Your task to perform on an android device: Search for logitech g910 on ebay, select the first entry, add it to the cart, then select checkout. Image 0: 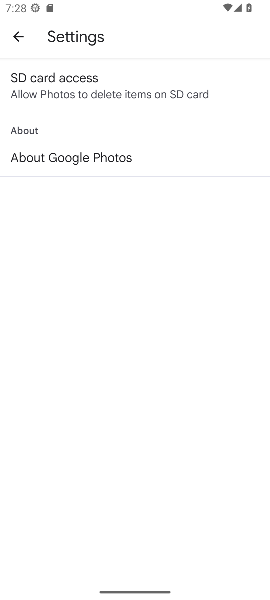
Step 0: press home button
Your task to perform on an android device: Search for logitech g910 on ebay, select the first entry, add it to the cart, then select checkout. Image 1: 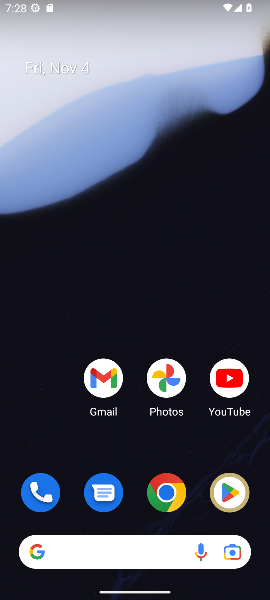
Step 1: drag from (184, 461) to (225, 33)
Your task to perform on an android device: Search for logitech g910 on ebay, select the first entry, add it to the cart, then select checkout. Image 2: 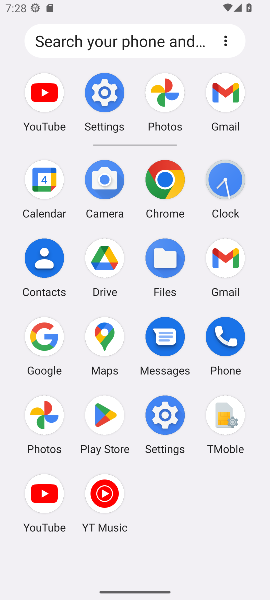
Step 2: click (167, 176)
Your task to perform on an android device: Search for logitech g910 on ebay, select the first entry, add it to the cart, then select checkout. Image 3: 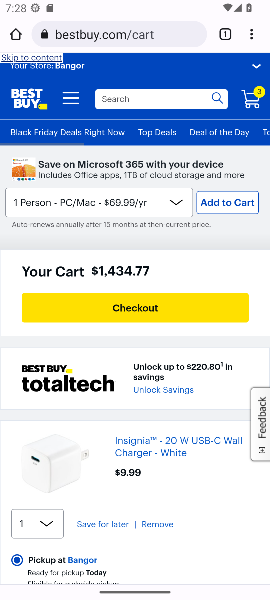
Step 3: click (151, 38)
Your task to perform on an android device: Search for logitech g910 on ebay, select the first entry, add it to the cart, then select checkout. Image 4: 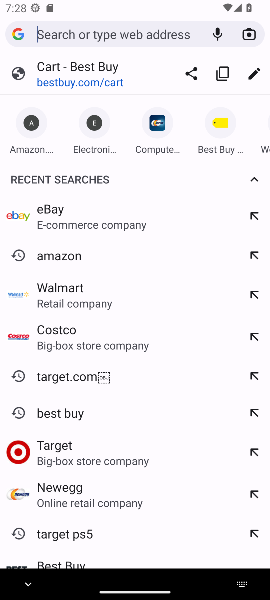
Step 4: type "ebay.com"
Your task to perform on an android device: Search for logitech g910 on ebay, select the first entry, add it to the cart, then select checkout. Image 5: 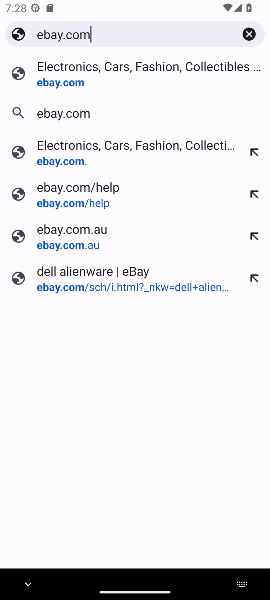
Step 5: press enter
Your task to perform on an android device: Search for logitech g910 on ebay, select the first entry, add it to the cart, then select checkout. Image 6: 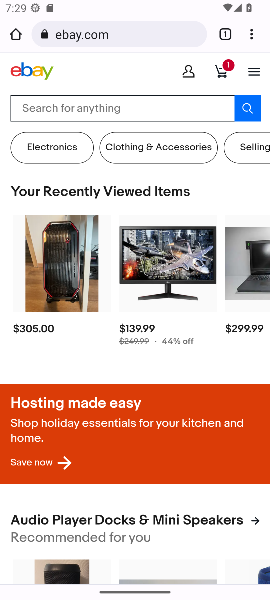
Step 6: click (151, 105)
Your task to perform on an android device: Search for logitech g910 on ebay, select the first entry, add it to the cart, then select checkout. Image 7: 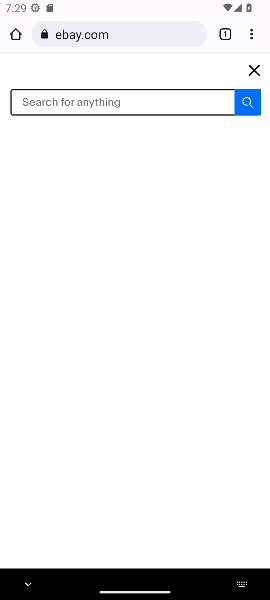
Step 7: type "logitech g910"
Your task to perform on an android device: Search for logitech g910 on ebay, select the first entry, add it to the cart, then select checkout. Image 8: 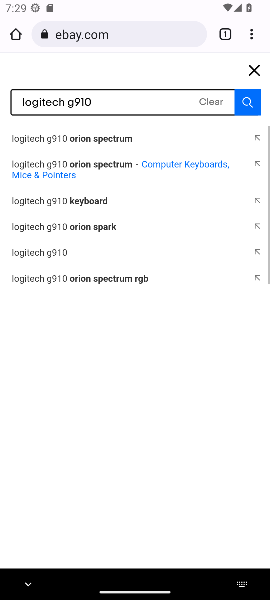
Step 8: press enter
Your task to perform on an android device: Search for logitech g910 on ebay, select the first entry, add it to the cart, then select checkout. Image 9: 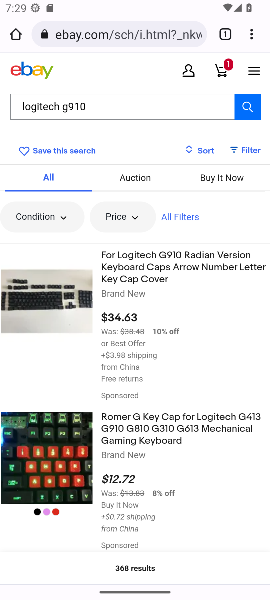
Step 9: click (161, 266)
Your task to perform on an android device: Search for logitech g910 on ebay, select the first entry, add it to the cart, then select checkout. Image 10: 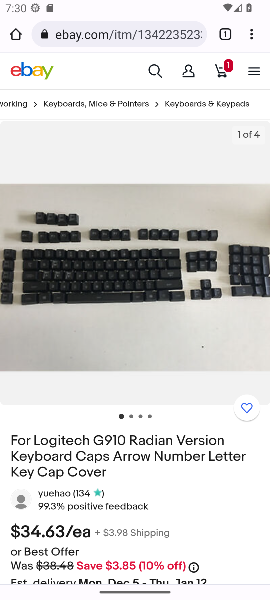
Step 10: drag from (170, 476) to (212, 119)
Your task to perform on an android device: Search for logitech g910 on ebay, select the first entry, add it to the cart, then select checkout. Image 11: 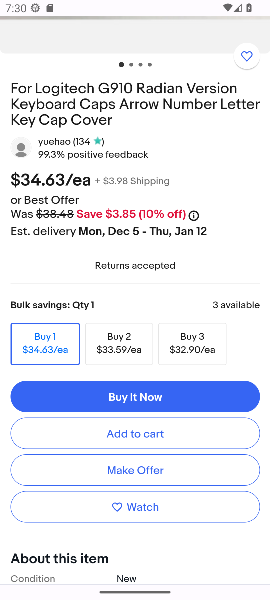
Step 11: click (173, 430)
Your task to perform on an android device: Search for logitech g910 on ebay, select the first entry, add it to the cart, then select checkout. Image 12: 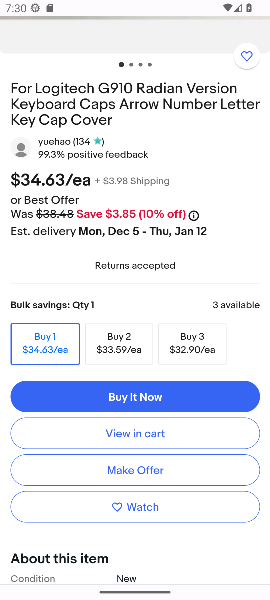
Step 12: click (148, 434)
Your task to perform on an android device: Search for logitech g910 on ebay, select the first entry, add it to the cart, then select checkout. Image 13: 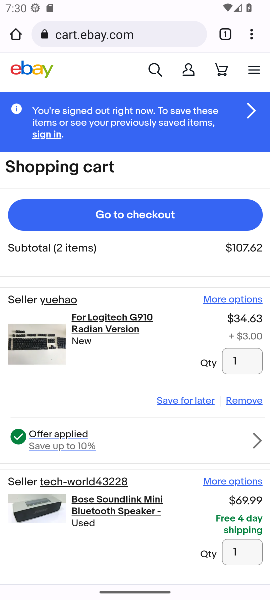
Step 13: click (118, 213)
Your task to perform on an android device: Search for logitech g910 on ebay, select the first entry, add it to the cart, then select checkout. Image 14: 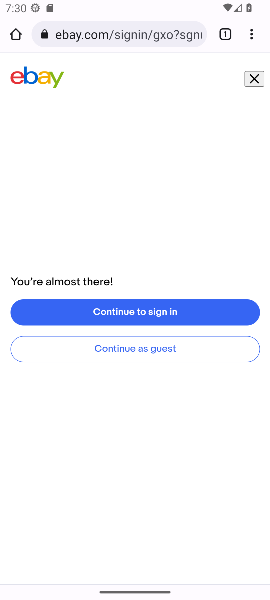
Step 14: task complete